Your task to perform on an android device: What is the news today? Image 0: 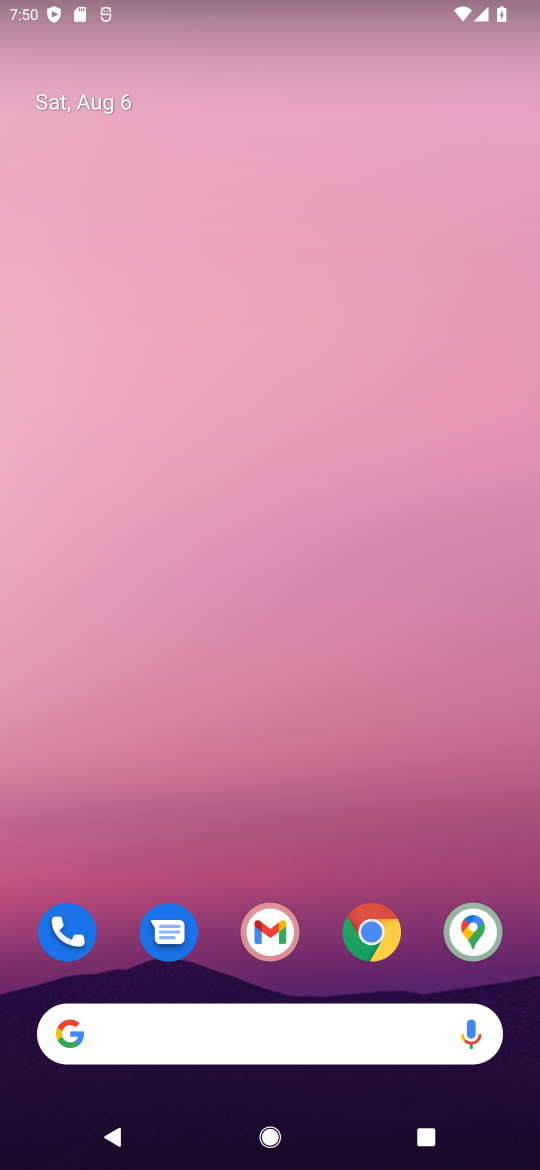
Step 0: click (184, 1027)
Your task to perform on an android device: What is the news today? Image 1: 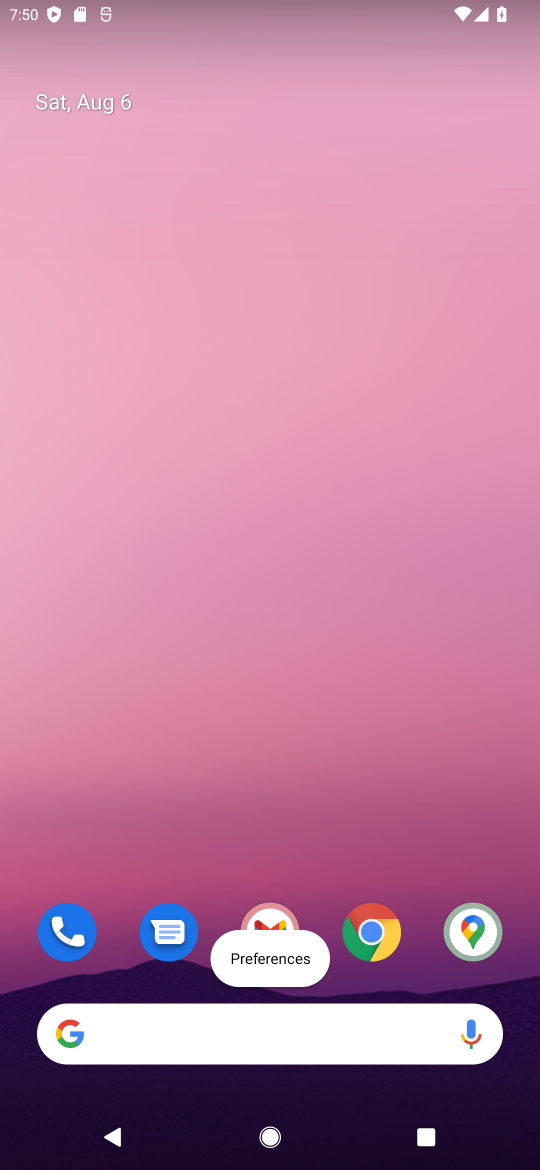
Step 1: click (184, 1027)
Your task to perform on an android device: What is the news today? Image 2: 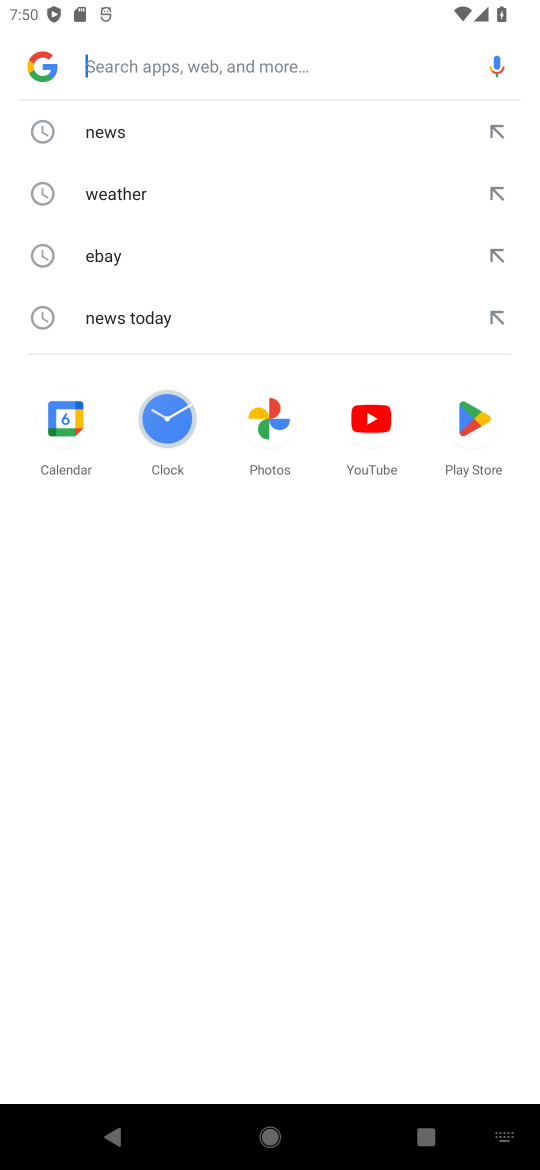
Step 2: click (112, 130)
Your task to perform on an android device: What is the news today? Image 3: 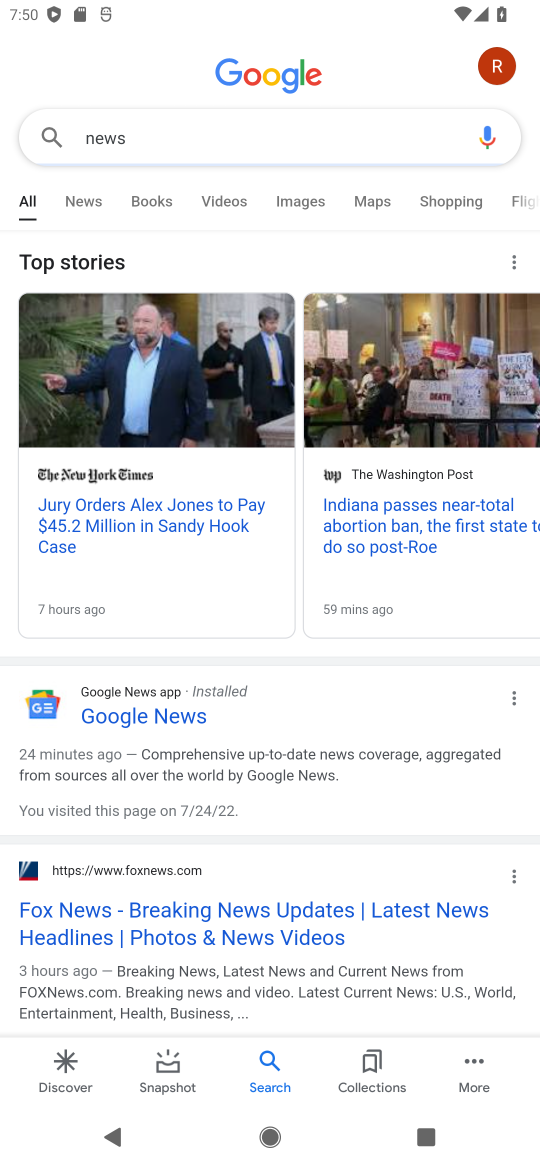
Step 3: click (80, 192)
Your task to perform on an android device: What is the news today? Image 4: 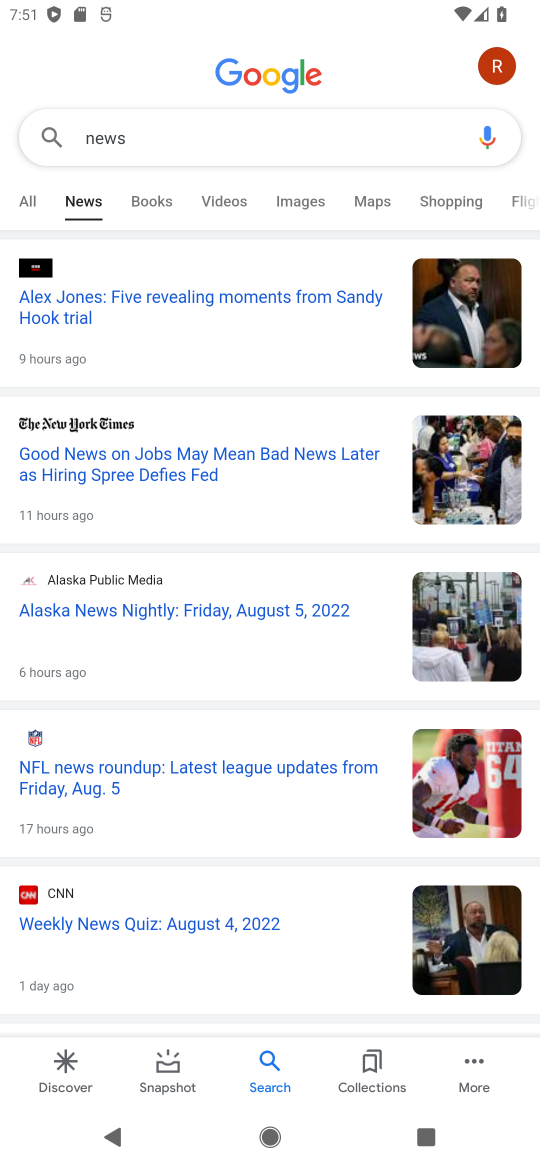
Step 4: task complete